Your task to perform on an android device: Open sound settings Image 0: 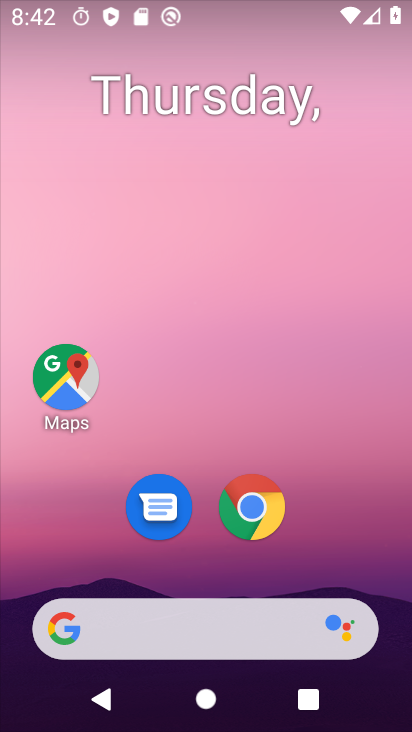
Step 0: drag from (206, 573) to (261, 91)
Your task to perform on an android device: Open sound settings Image 1: 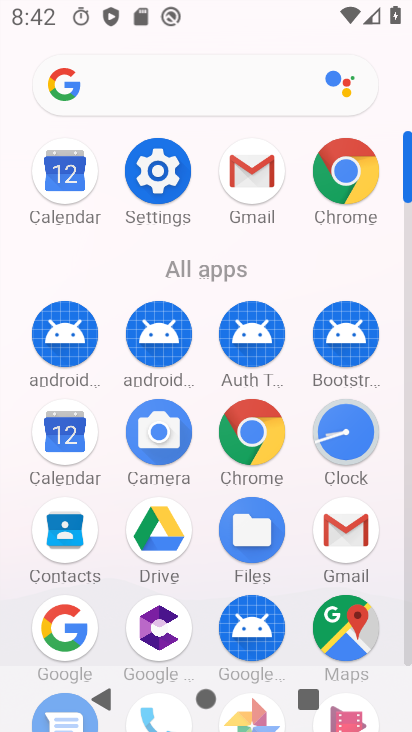
Step 1: click (147, 186)
Your task to perform on an android device: Open sound settings Image 2: 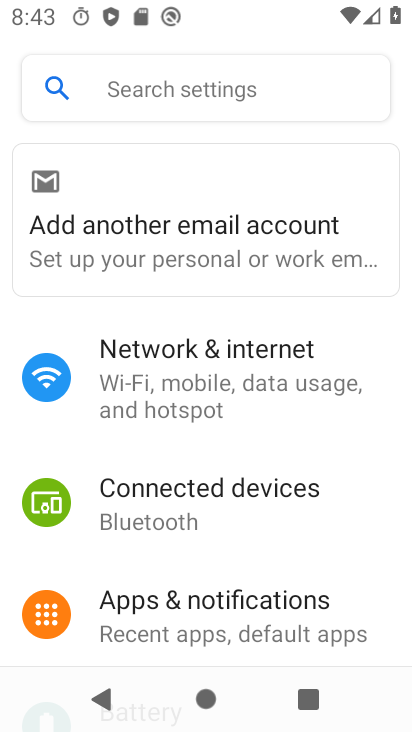
Step 2: drag from (242, 555) to (271, 255)
Your task to perform on an android device: Open sound settings Image 3: 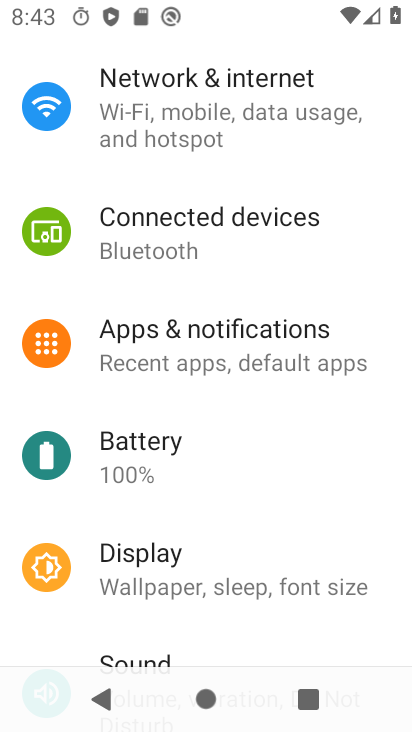
Step 3: drag from (206, 483) to (245, 202)
Your task to perform on an android device: Open sound settings Image 4: 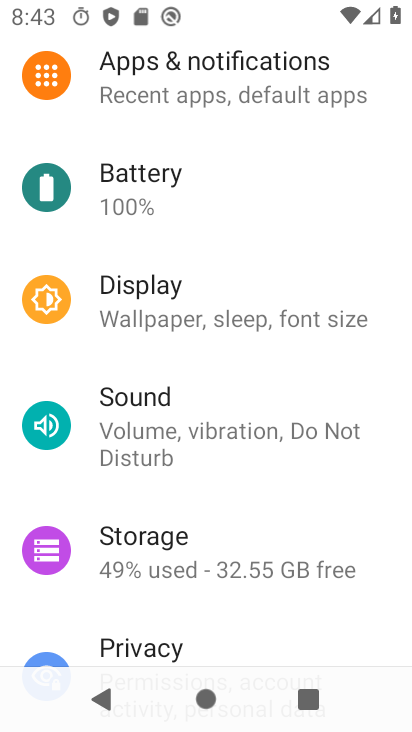
Step 4: click (178, 435)
Your task to perform on an android device: Open sound settings Image 5: 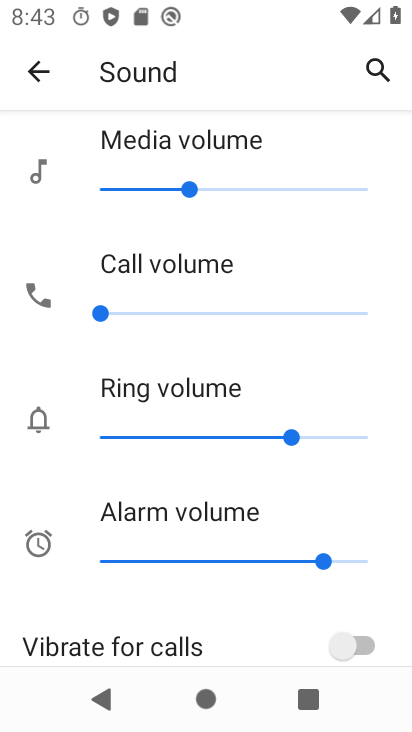
Step 5: task complete